Your task to perform on an android device: Open a new Chrome private tab Image 0: 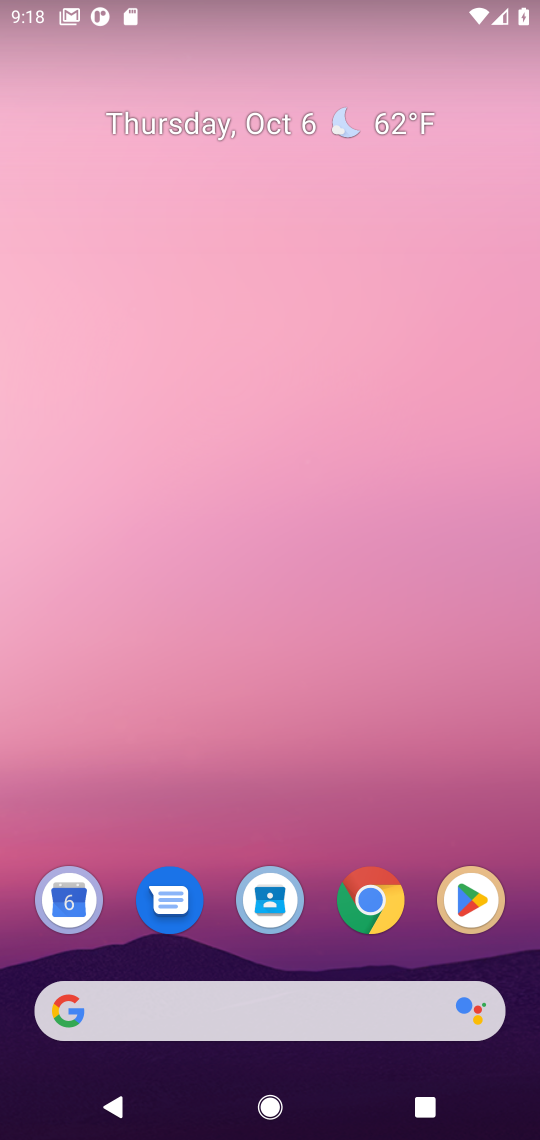
Step 0: drag from (507, 368) to (507, 50)
Your task to perform on an android device: Open a new Chrome private tab Image 1: 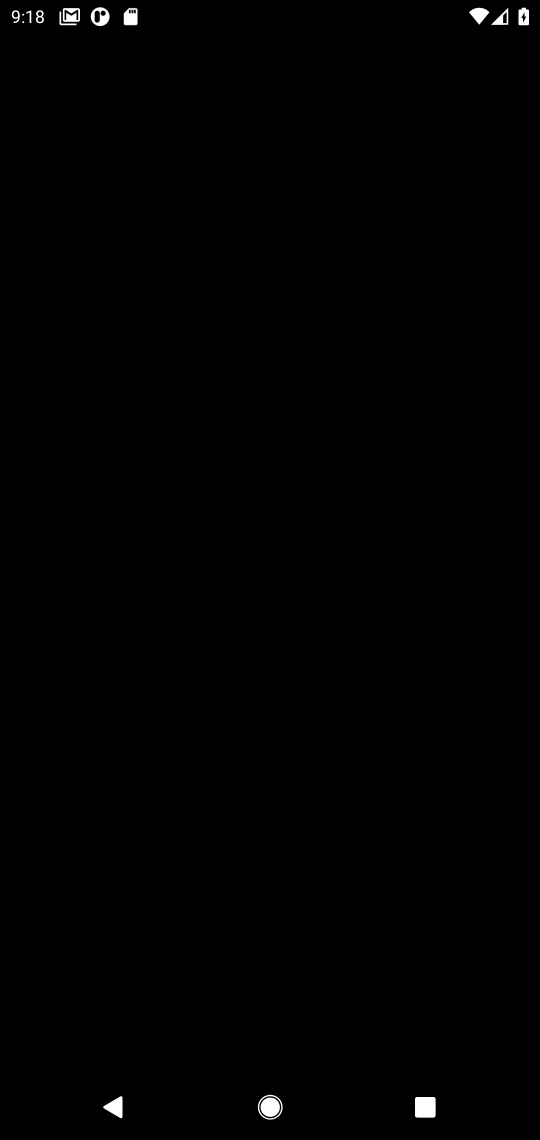
Step 1: press home button
Your task to perform on an android device: Open a new Chrome private tab Image 2: 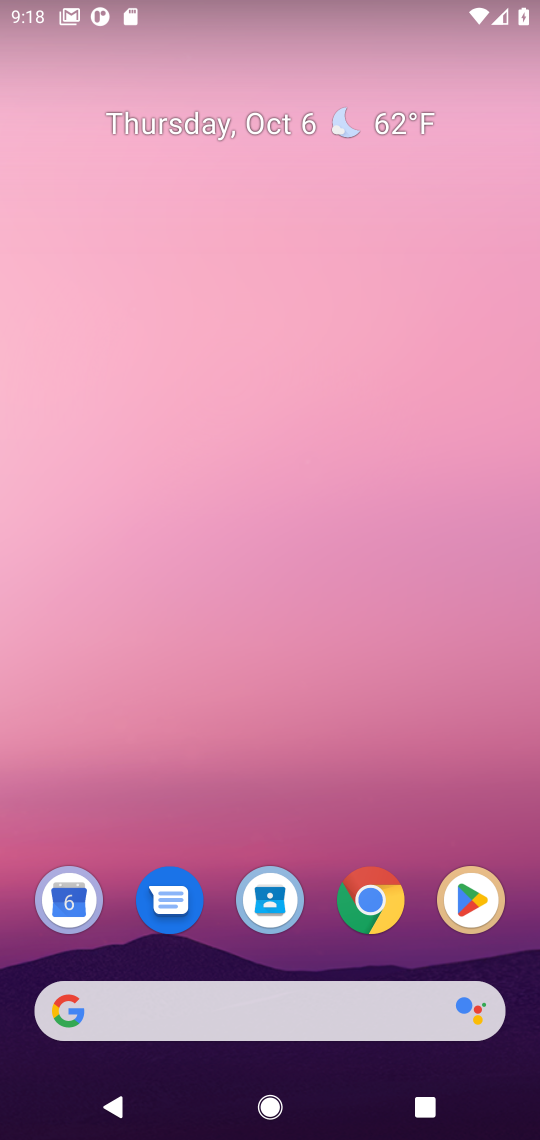
Step 2: drag from (379, 788) to (370, 60)
Your task to perform on an android device: Open a new Chrome private tab Image 3: 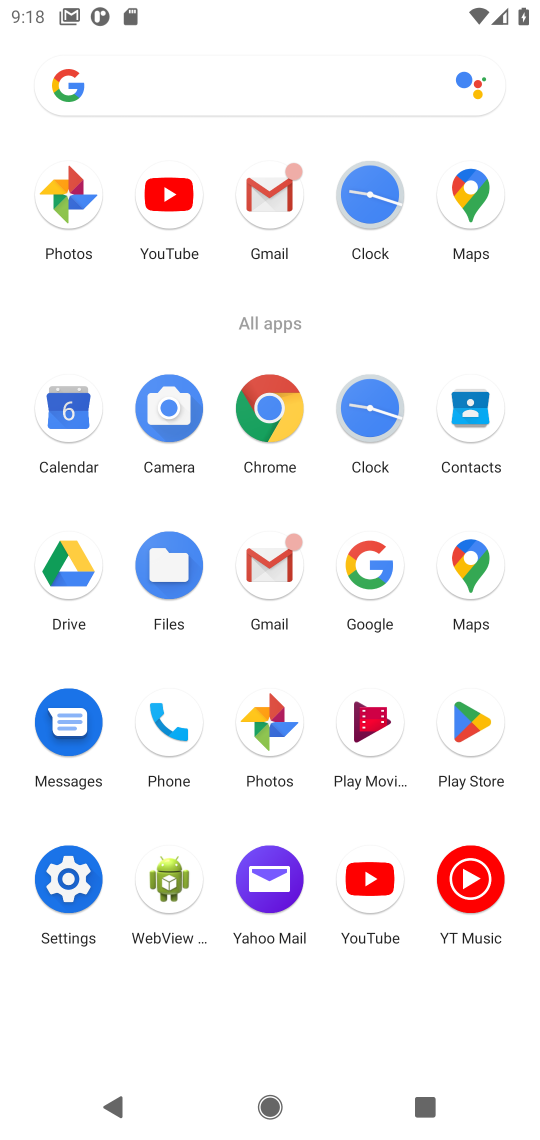
Step 3: click (269, 426)
Your task to perform on an android device: Open a new Chrome private tab Image 4: 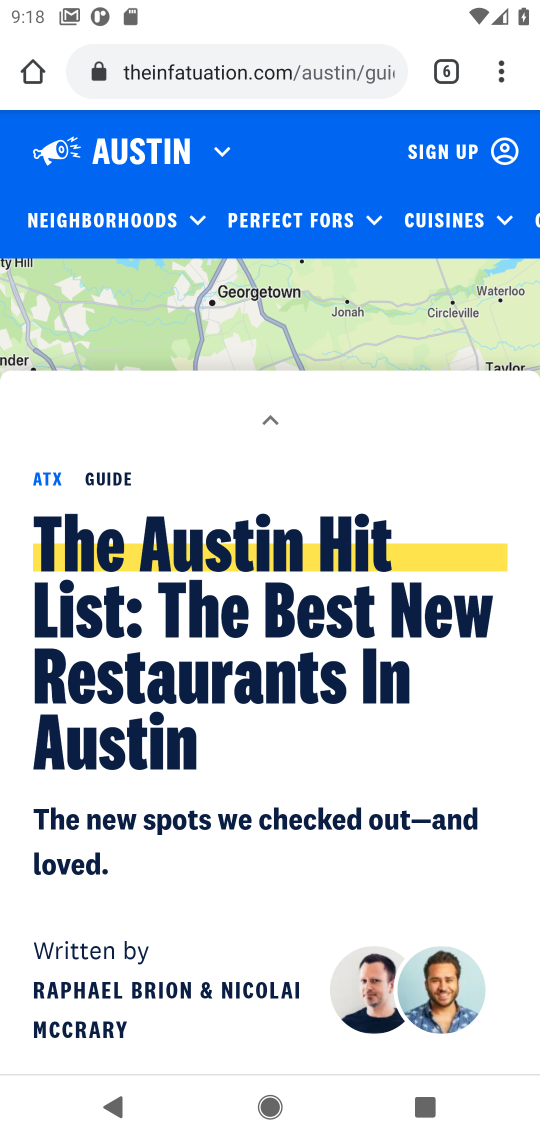
Step 4: click (499, 67)
Your task to perform on an android device: Open a new Chrome private tab Image 5: 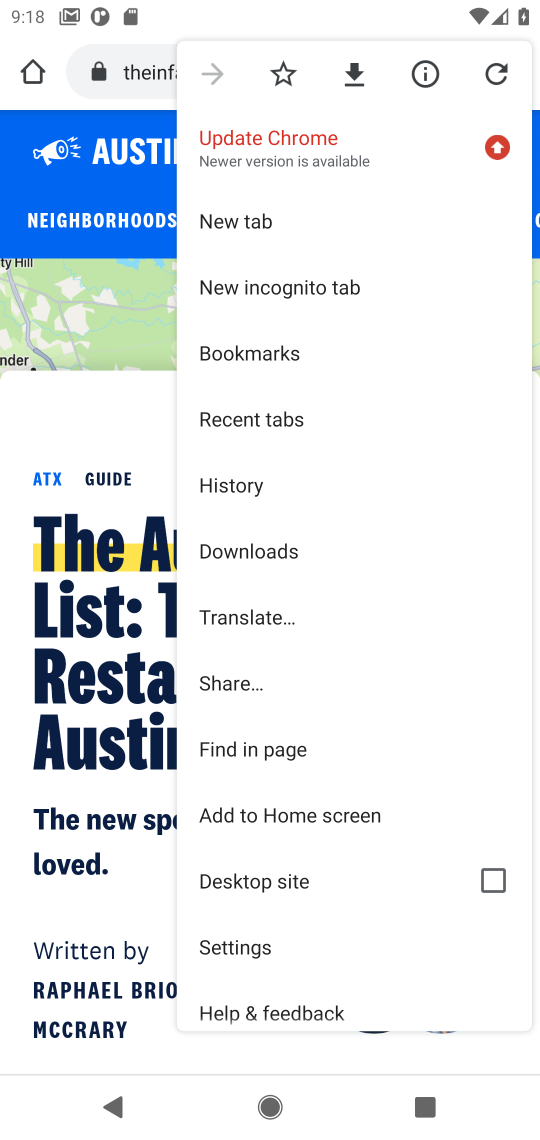
Step 5: click (230, 228)
Your task to perform on an android device: Open a new Chrome private tab Image 6: 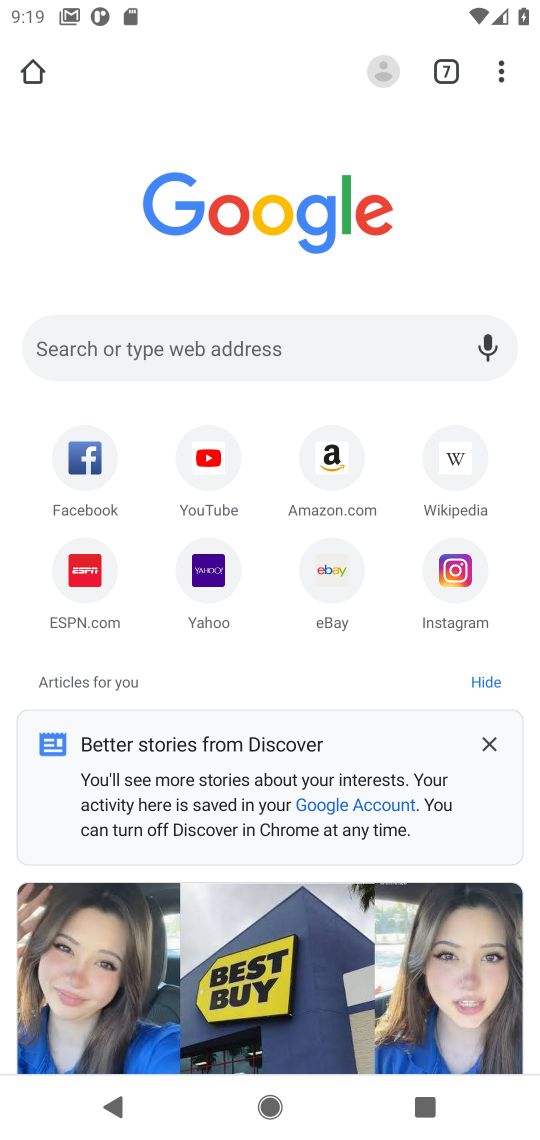
Step 6: task complete